Your task to perform on an android device: show emergency info Image 0: 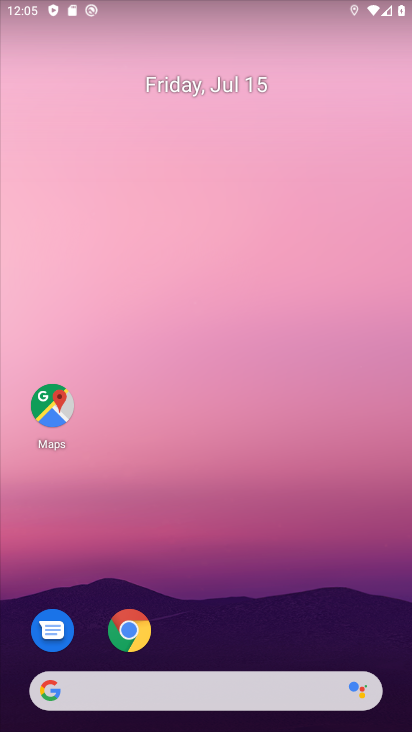
Step 0: drag from (211, 651) to (133, 13)
Your task to perform on an android device: show emergency info Image 1: 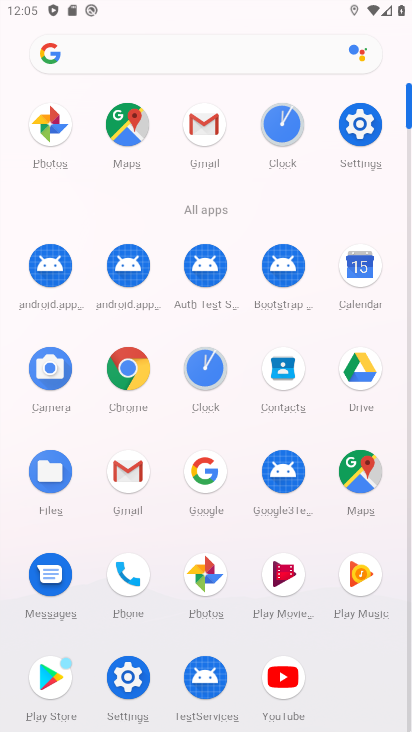
Step 1: click (357, 121)
Your task to perform on an android device: show emergency info Image 2: 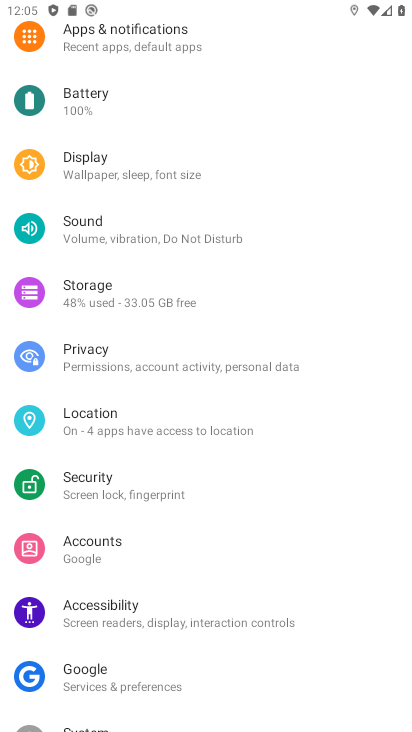
Step 2: drag from (175, 637) to (174, 339)
Your task to perform on an android device: show emergency info Image 3: 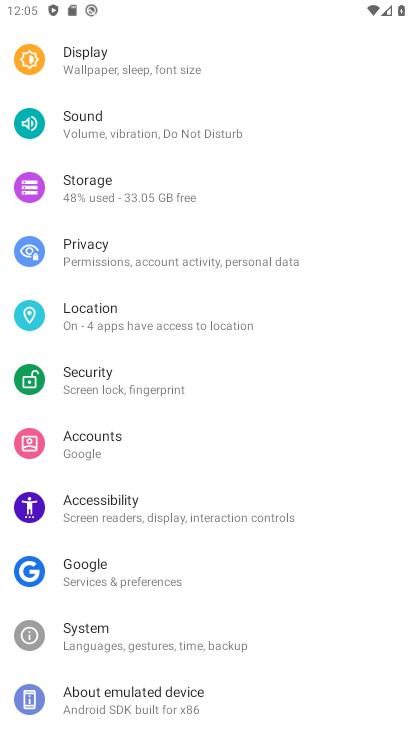
Step 3: click (87, 693)
Your task to perform on an android device: show emergency info Image 4: 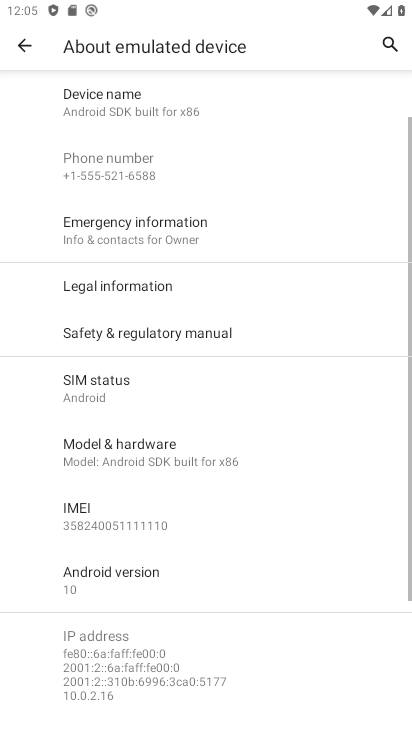
Step 4: click (86, 231)
Your task to perform on an android device: show emergency info Image 5: 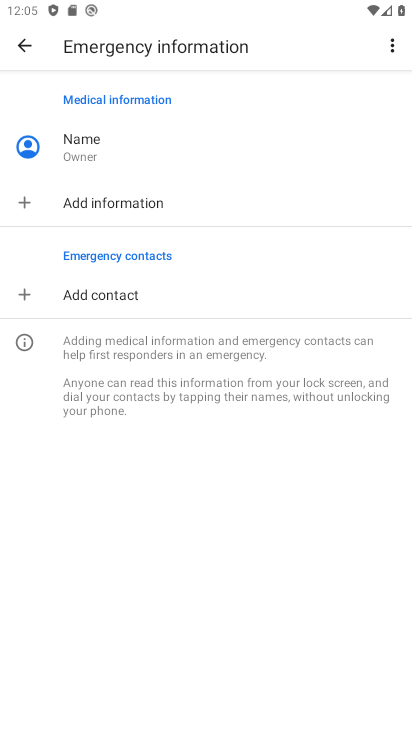
Step 5: task complete